Your task to perform on an android device: When is my next meeting? Image 0: 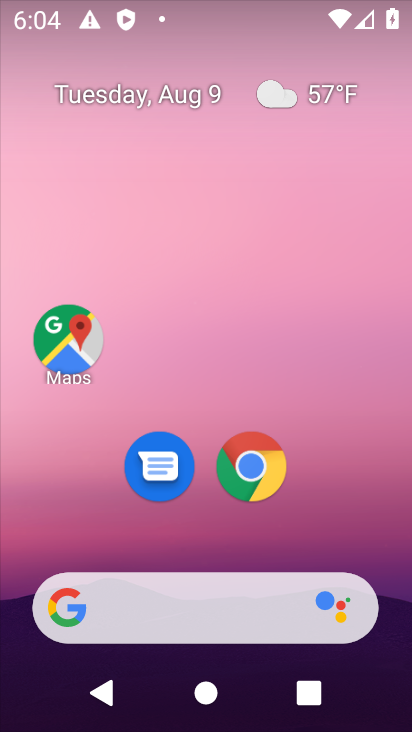
Step 0: drag from (185, 539) to (170, 0)
Your task to perform on an android device: When is my next meeting? Image 1: 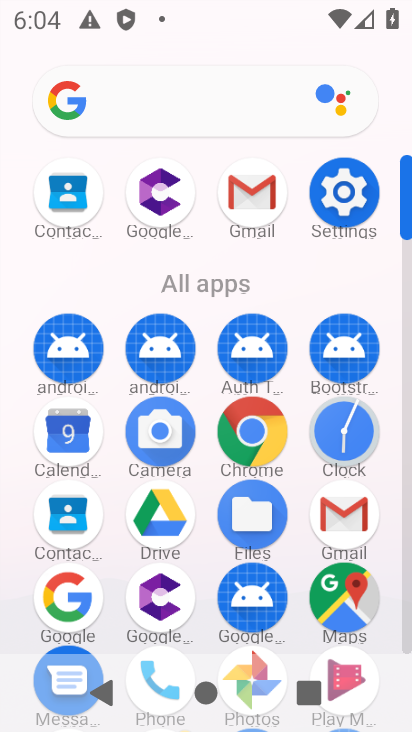
Step 1: drag from (288, 511) to (287, 226)
Your task to perform on an android device: When is my next meeting? Image 2: 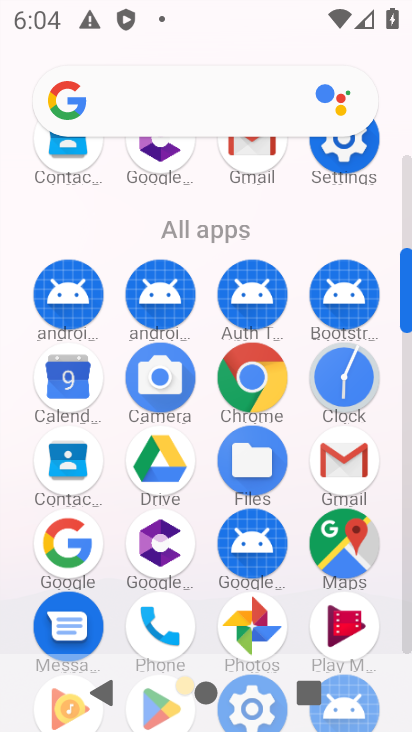
Step 2: drag from (277, 639) to (303, 451)
Your task to perform on an android device: When is my next meeting? Image 3: 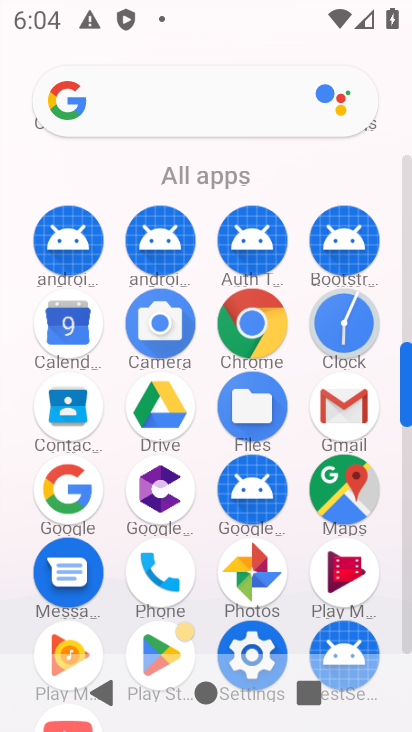
Step 3: click (73, 337)
Your task to perform on an android device: When is my next meeting? Image 4: 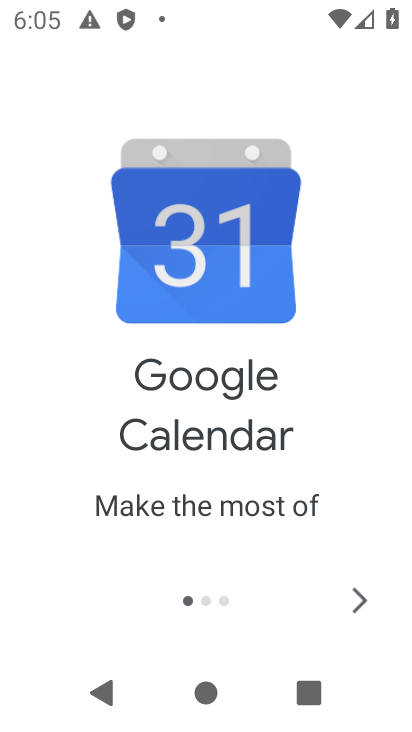
Step 4: click (358, 600)
Your task to perform on an android device: When is my next meeting? Image 5: 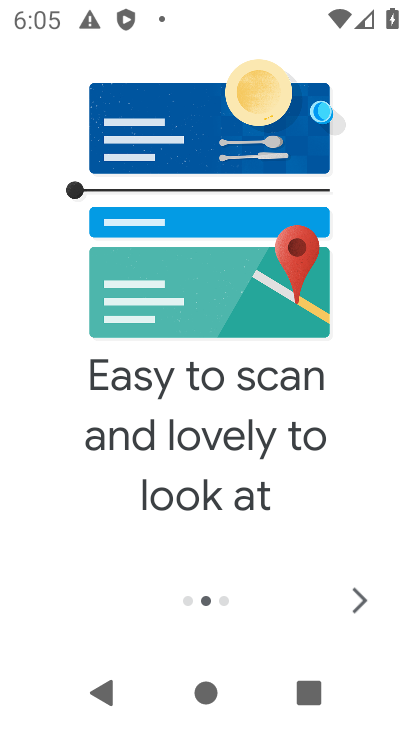
Step 5: click (358, 600)
Your task to perform on an android device: When is my next meeting? Image 6: 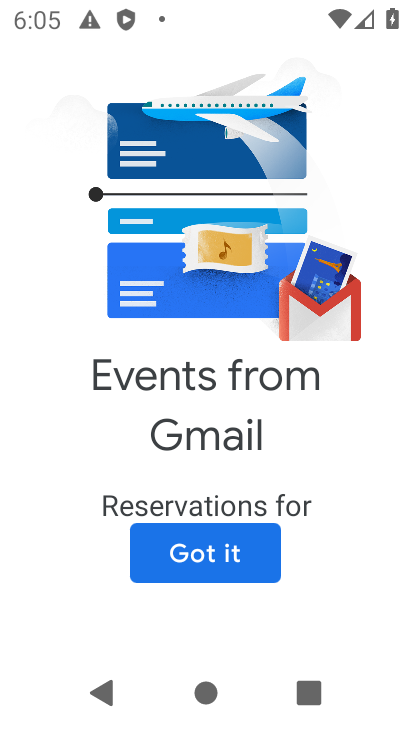
Step 6: click (210, 550)
Your task to perform on an android device: When is my next meeting? Image 7: 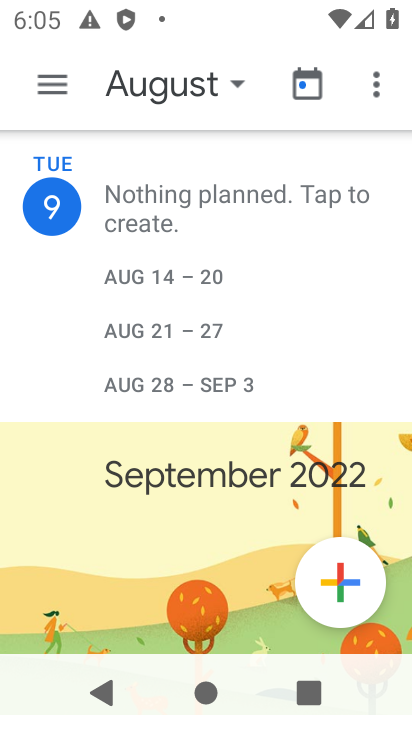
Step 7: click (212, 84)
Your task to perform on an android device: When is my next meeting? Image 8: 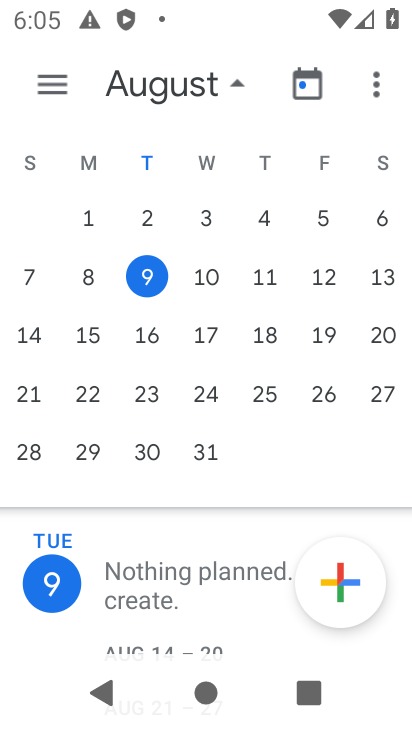
Step 8: click (153, 87)
Your task to perform on an android device: When is my next meeting? Image 9: 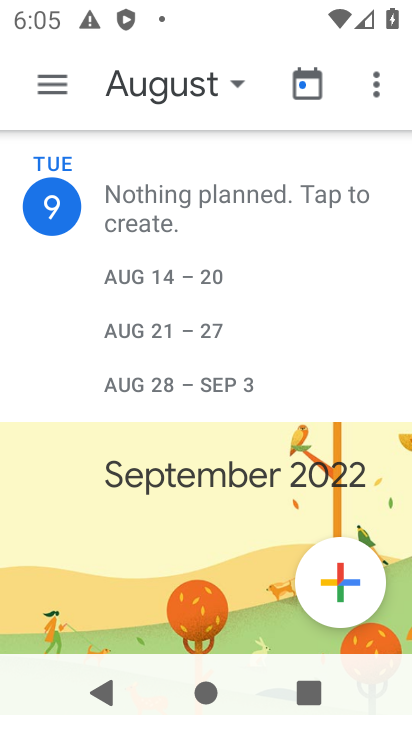
Step 9: drag from (190, 369) to (202, 199)
Your task to perform on an android device: When is my next meeting? Image 10: 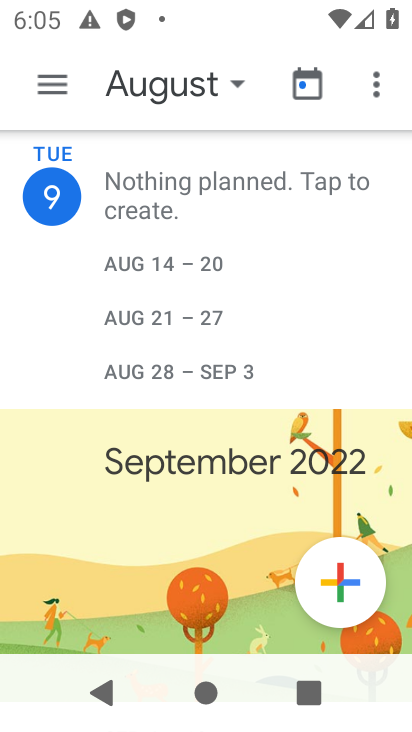
Step 10: click (45, 81)
Your task to perform on an android device: When is my next meeting? Image 11: 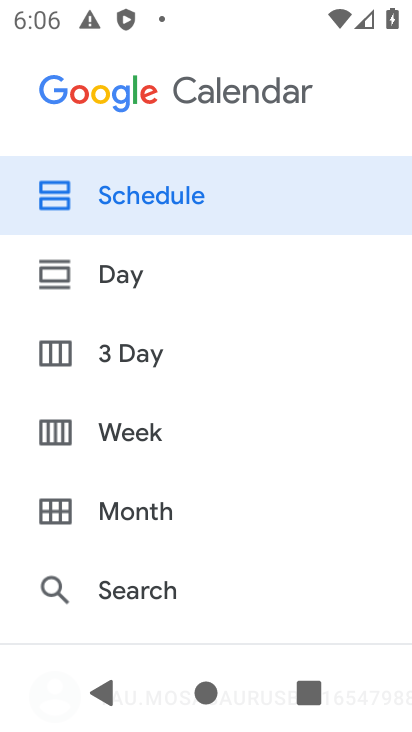
Step 11: click (120, 268)
Your task to perform on an android device: When is my next meeting? Image 12: 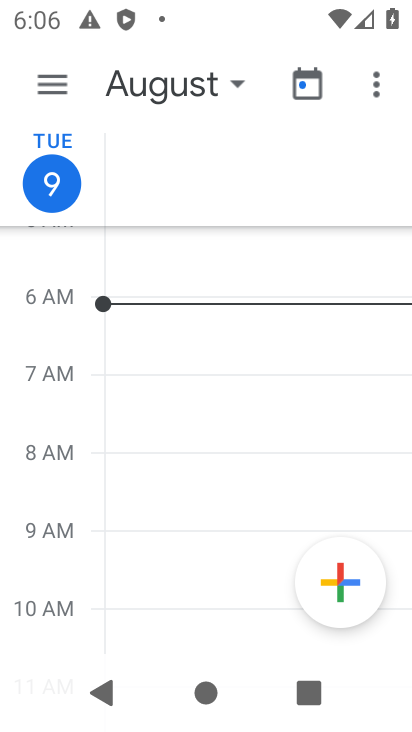
Step 12: task complete